Your task to perform on an android device: toggle priority inbox in the gmail app Image 0: 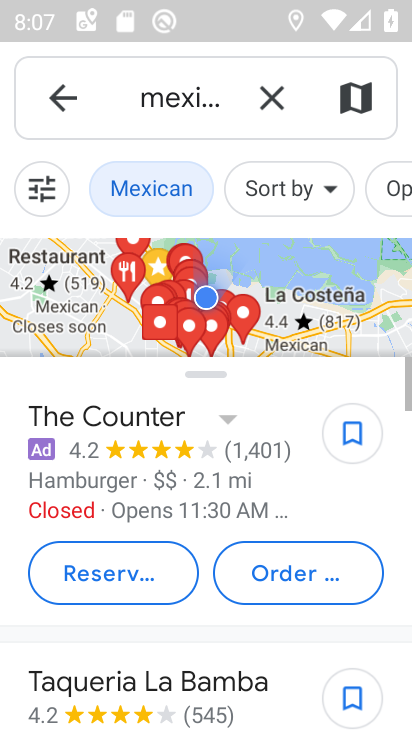
Step 0: press home button
Your task to perform on an android device: toggle priority inbox in the gmail app Image 1: 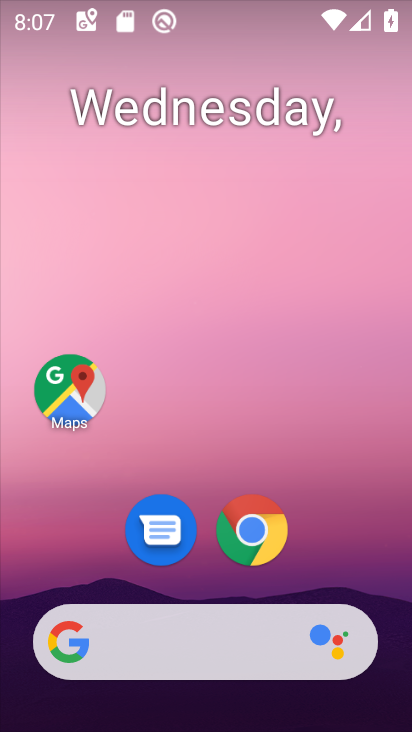
Step 1: drag from (400, 624) to (307, 121)
Your task to perform on an android device: toggle priority inbox in the gmail app Image 2: 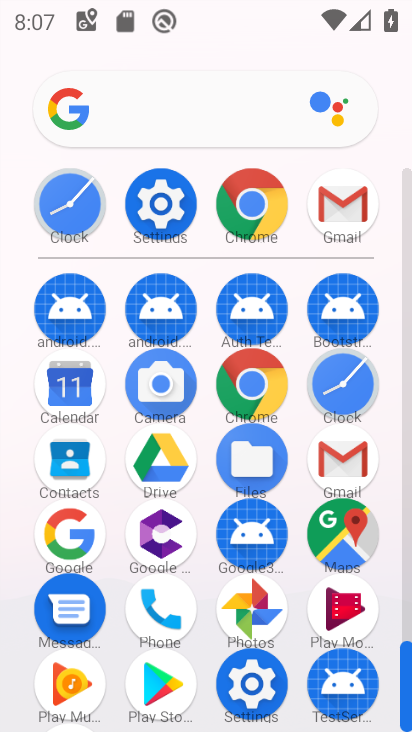
Step 2: click (340, 463)
Your task to perform on an android device: toggle priority inbox in the gmail app Image 3: 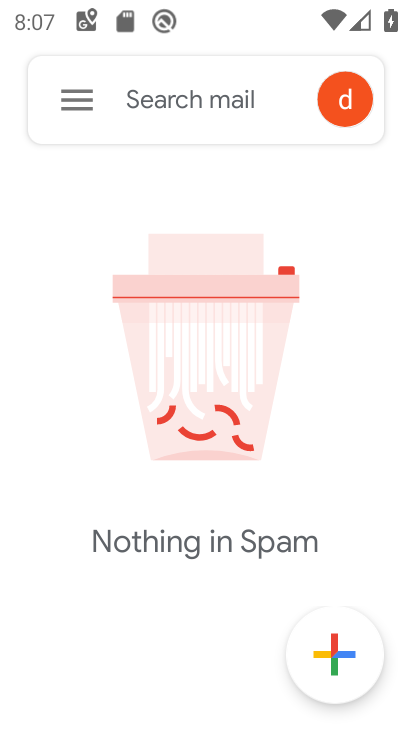
Step 3: click (73, 93)
Your task to perform on an android device: toggle priority inbox in the gmail app Image 4: 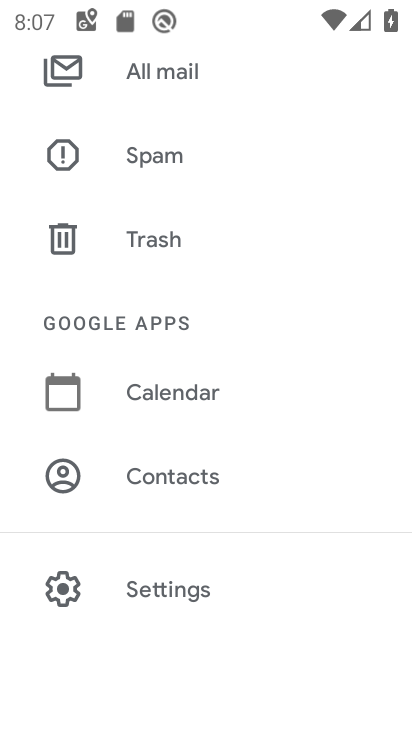
Step 4: drag from (184, 169) to (201, 369)
Your task to perform on an android device: toggle priority inbox in the gmail app Image 5: 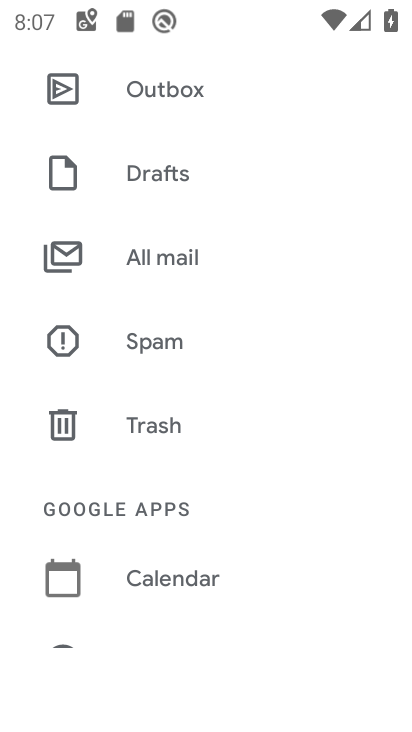
Step 5: drag from (151, 575) to (148, 138)
Your task to perform on an android device: toggle priority inbox in the gmail app Image 6: 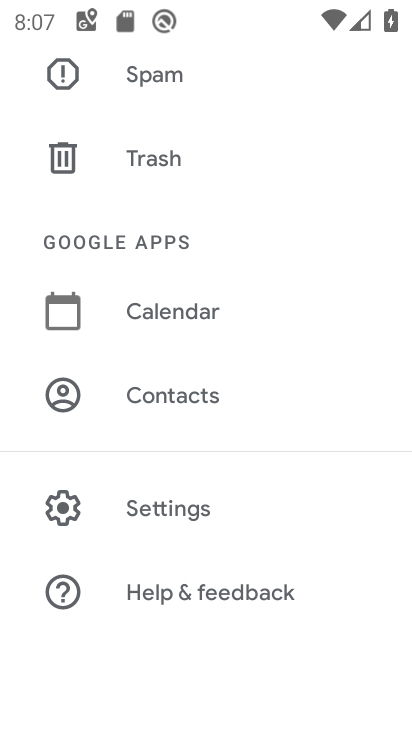
Step 6: click (167, 524)
Your task to perform on an android device: toggle priority inbox in the gmail app Image 7: 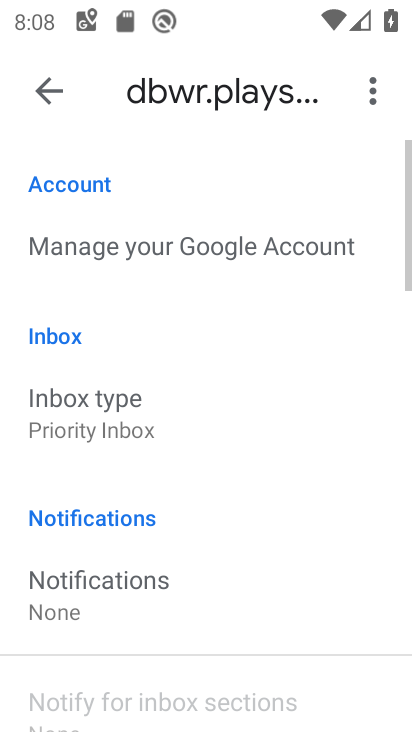
Step 7: click (152, 422)
Your task to perform on an android device: toggle priority inbox in the gmail app Image 8: 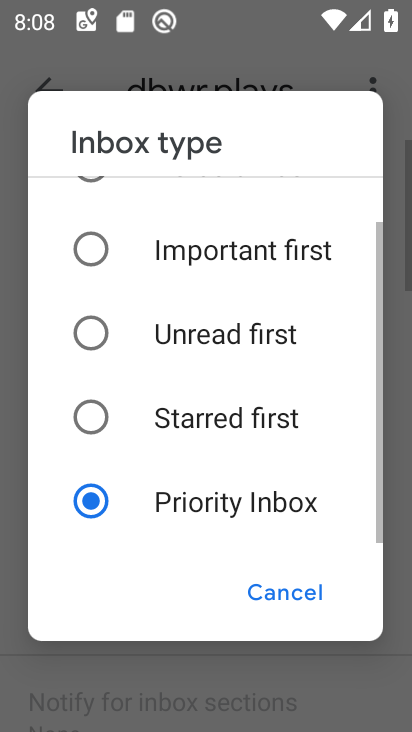
Step 8: click (152, 422)
Your task to perform on an android device: toggle priority inbox in the gmail app Image 9: 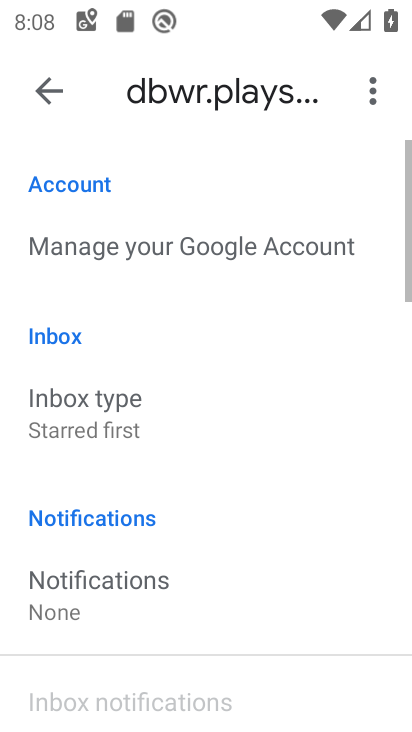
Step 9: task complete